Your task to perform on an android device: Open Google Chrome Image 0: 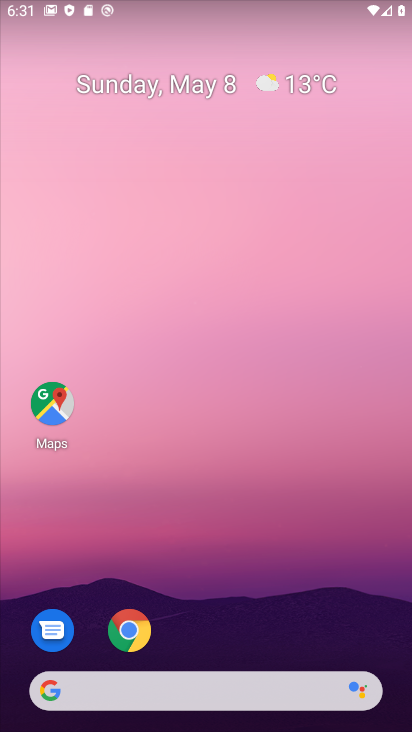
Step 0: click (138, 635)
Your task to perform on an android device: Open Google Chrome Image 1: 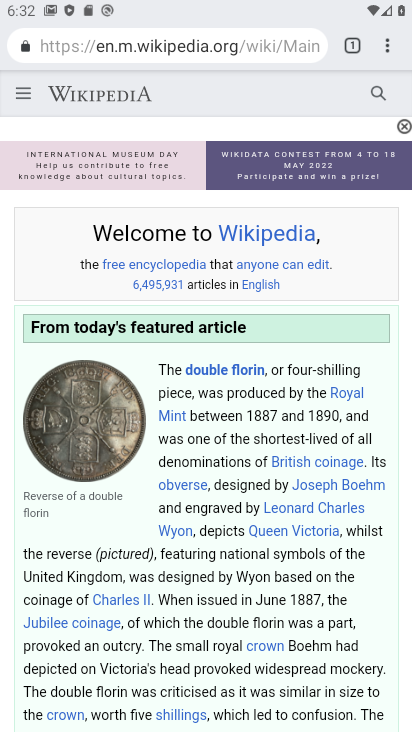
Step 1: click (385, 43)
Your task to perform on an android device: Open Google Chrome Image 2: 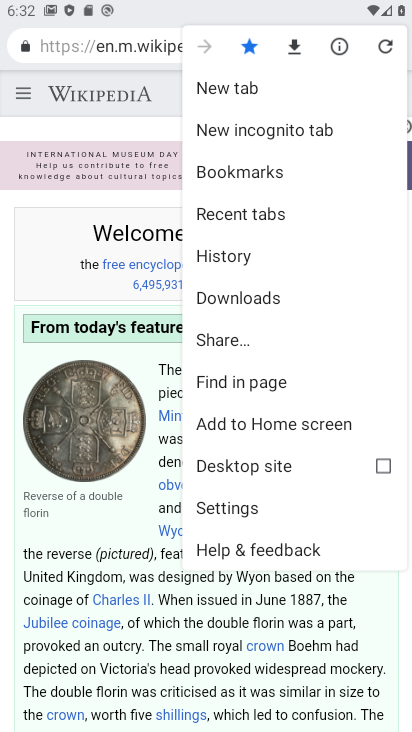
Step 2: click (233, 88)
Your task to perform on an android device: Open Google Chrome Image 3: 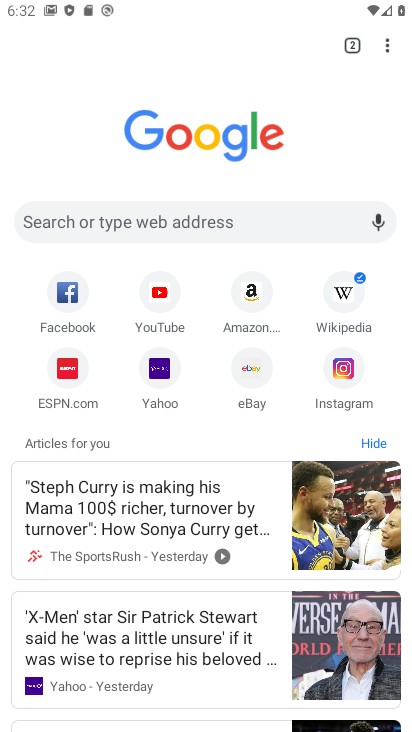
Step 3: task complete